Your task to perform on an android device: uninstall "Google Duo" Image 0: 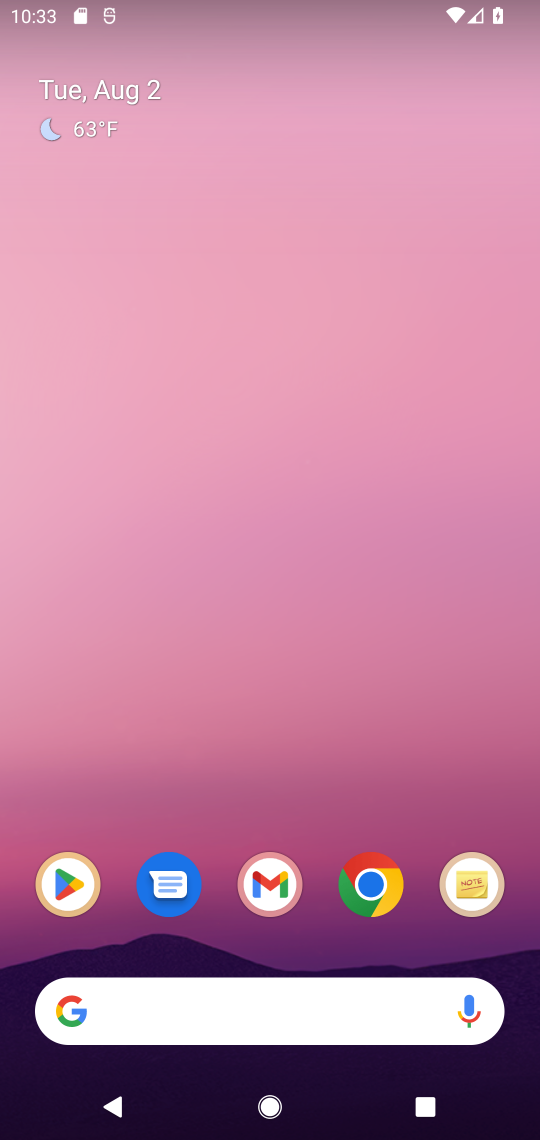
Step 0: click (81, 887)
Your task to perform on an android device: uninstall "Google Duo" Image 1: 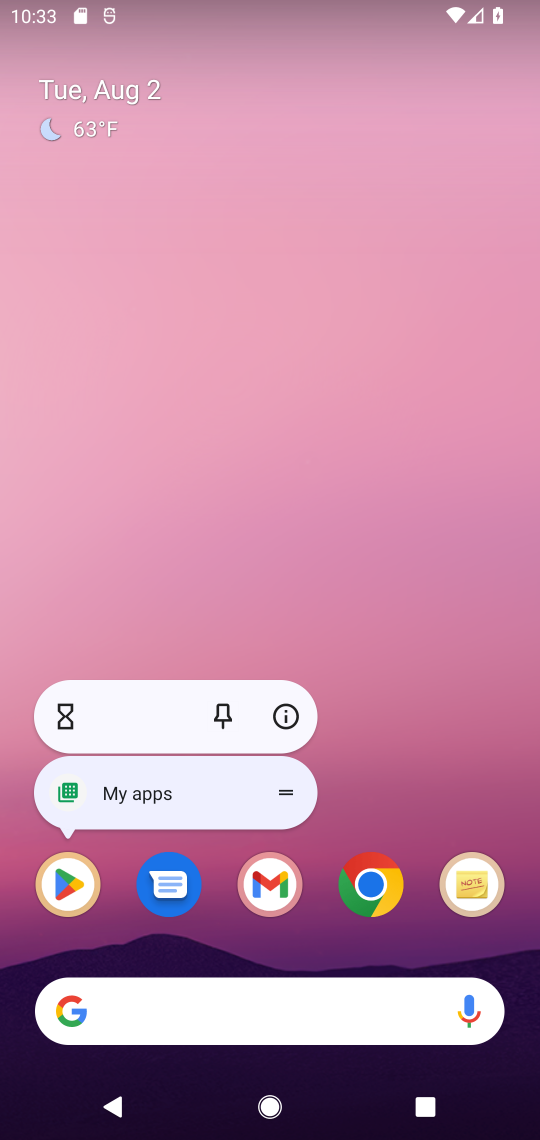
Step 1: click (69, 869)
Your task to perform on an android device: uninstall "Google Duo" Image 2: 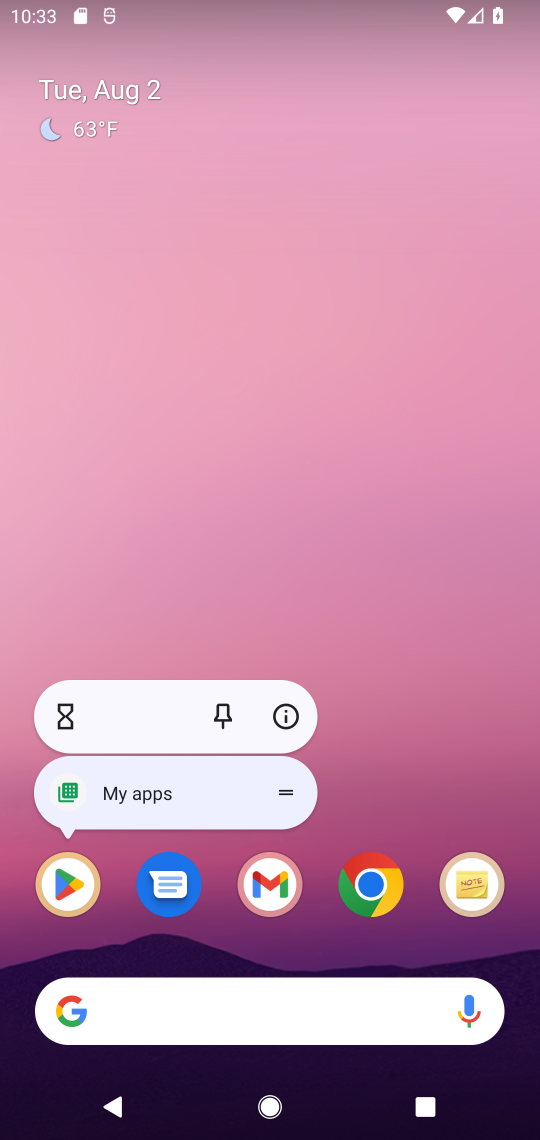
Step 2: click (69, 869)
Your task to perform on an android device: uninstall "Google Duo" Image 3: 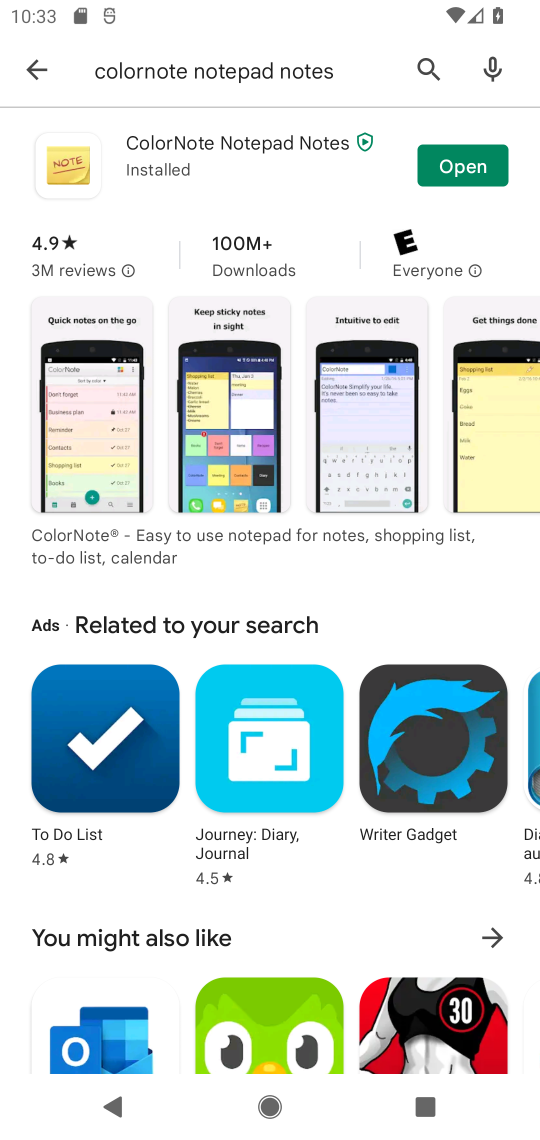
Step 3: click (210, 63)
Your task to perform on an android device: uninstall "Google Duo" Image 4: 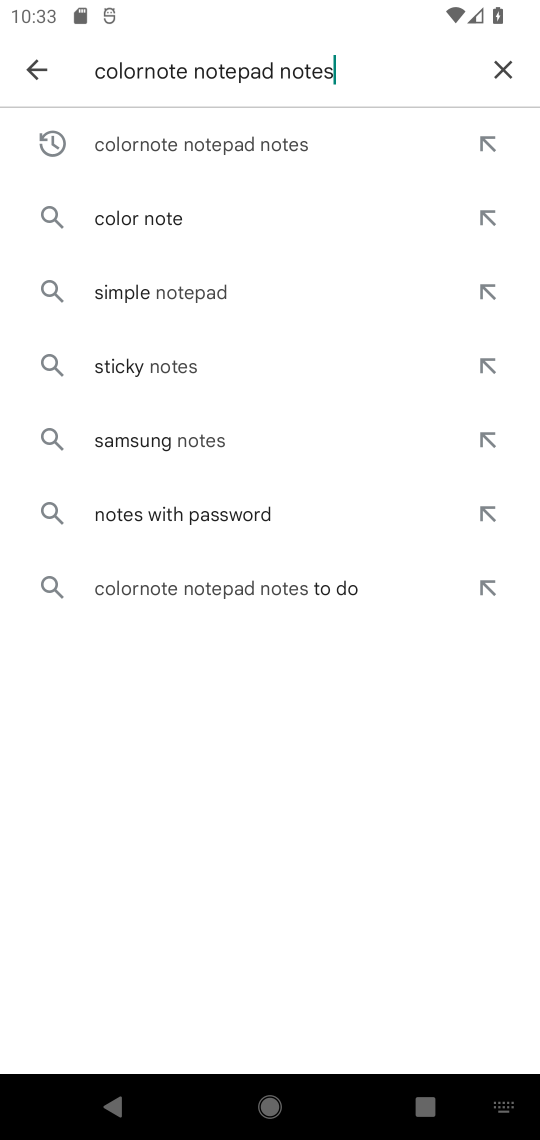
Step 4: click (483, 61)
Your task to perform on an android device: uninstall "Google Duo" Image 5: 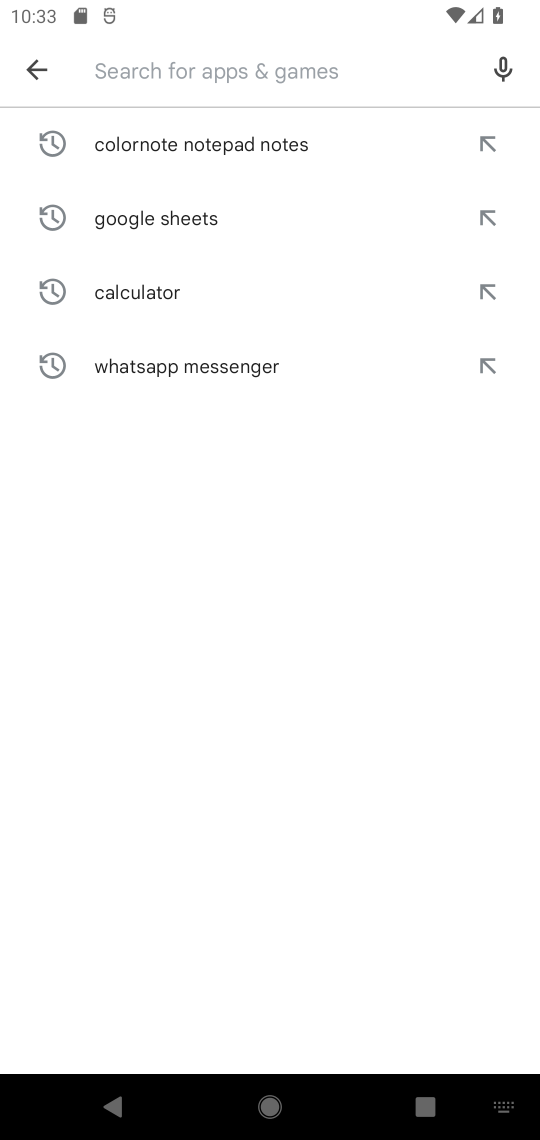
Step 5: type "google duo"
Your task to perform on an android device: uninstall "Google Duo" Image 6: 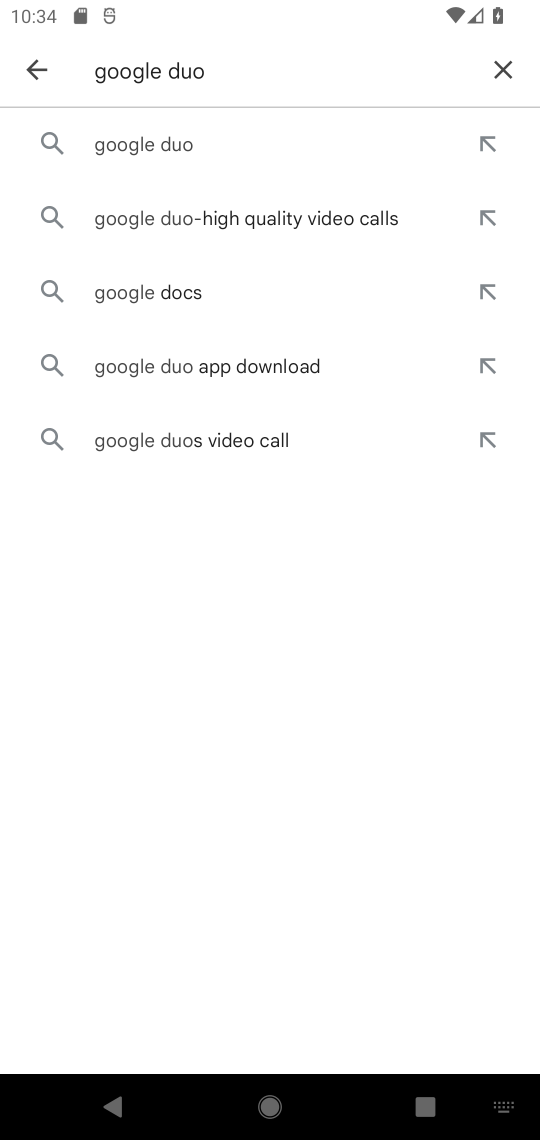
Step 6: click (191, 145)
Your task to perform on an android device: uninstall "Google Duo" Image 7: 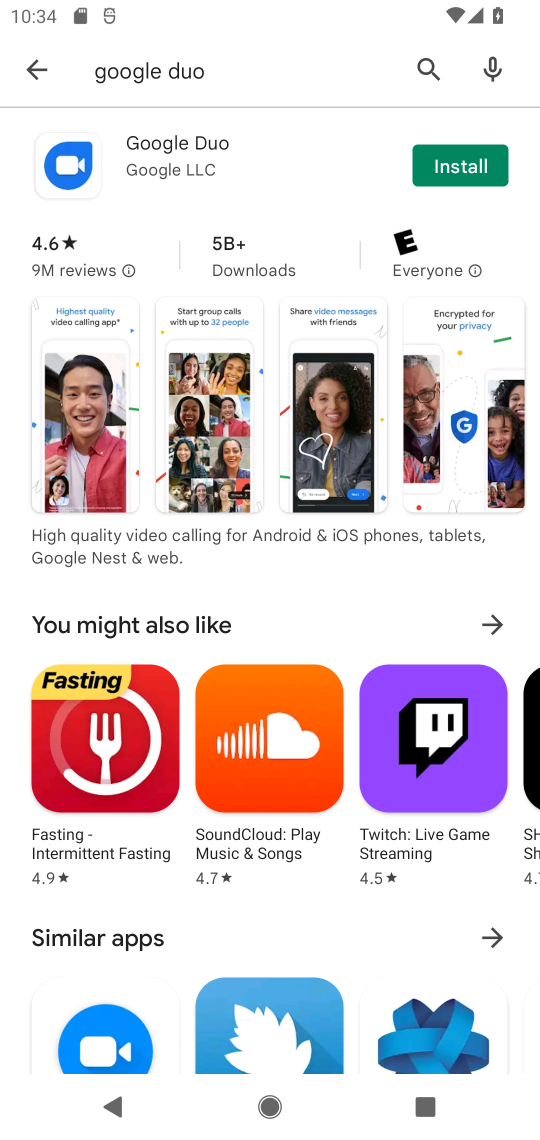
Step 7: task complete